Your task to perform on an android device: Show me recent news Image 0: 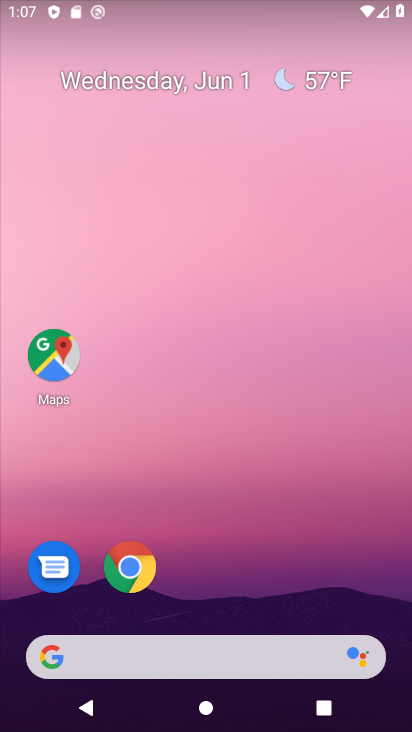
Step 0: drag from (27, 281) to (408, 408)
Your task to perform on an android device: Show me recent news Image 1: 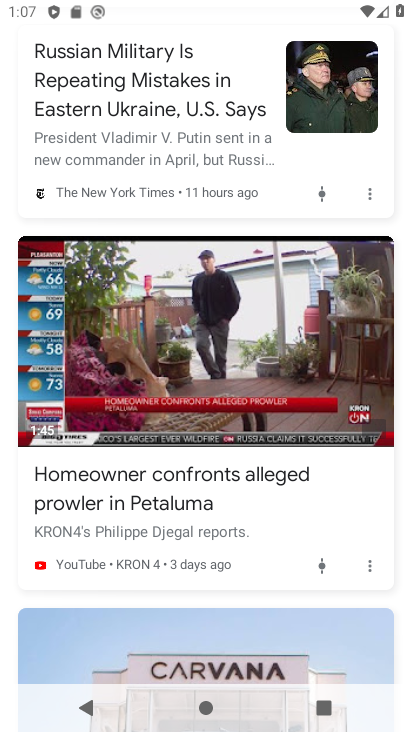
Step 1: task complete